Your task to perform on an android device: open a bookmark in the chrome app Image 0: 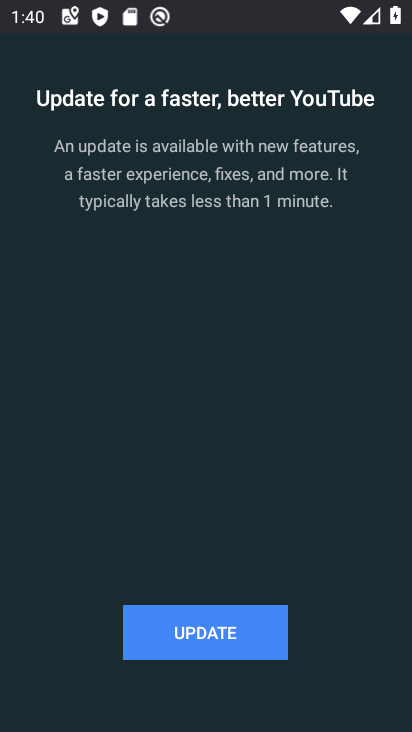
Step 0: press home button
Your task to perform on an android device: open a bookmark in the chrome app Image 1: 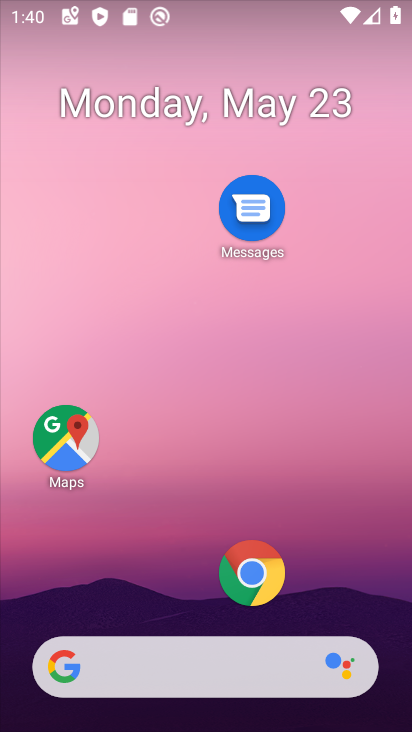
Step 1: drag from (174, 540) to (229, 182)
Your task to perform on an android device: open a bookmark in the chrome app Image 2: 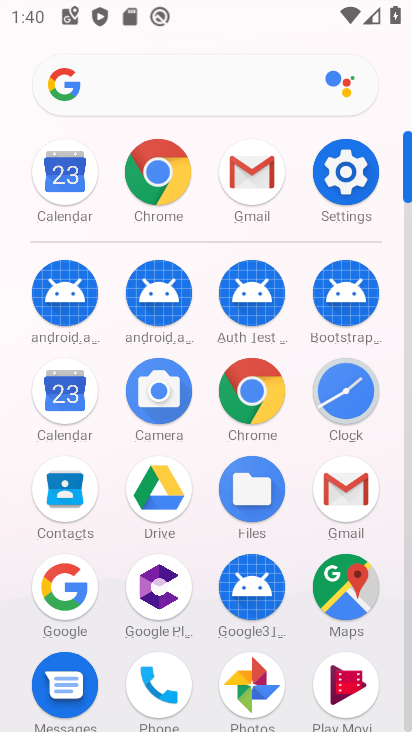
Step 2: click (164, 165)
Your task to perform on an android device: open a bookmark in the chrome app Image 3: 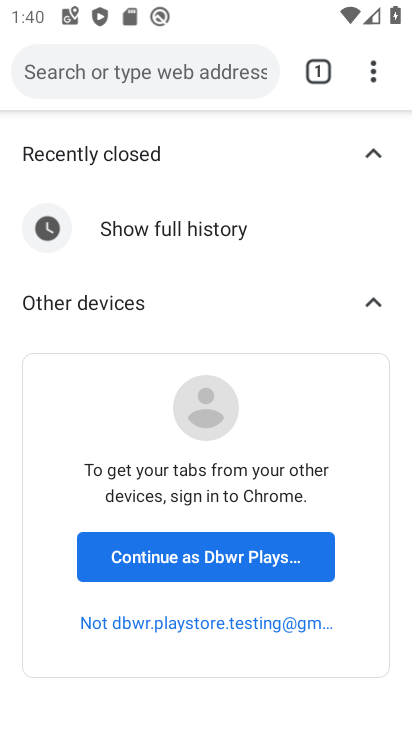
Step 3: click (366, 69)
Your task to perform on an android device: open a bookmark in the chrome app Image 4: 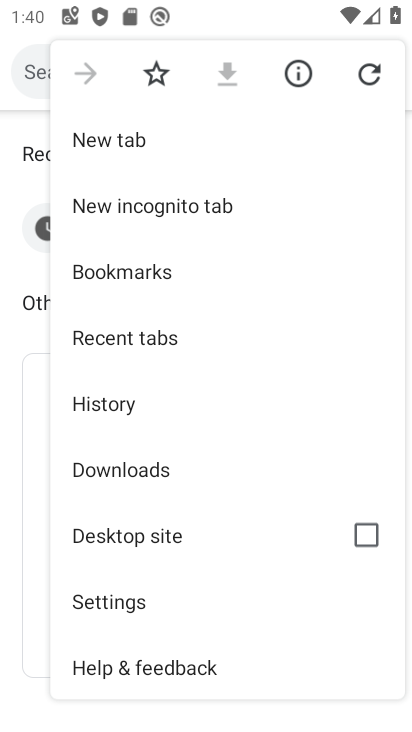
Step 4: click (134, 275)
Your task to perform on an android device: open a bookmark in the chrome app Image 5: 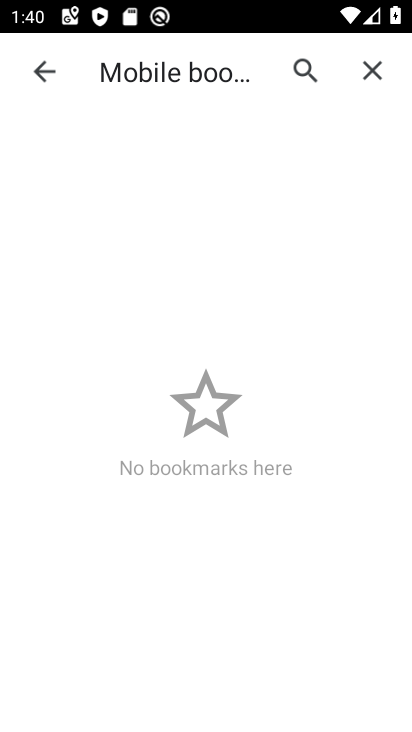
Step 5: task complete